Your task to perform on an android device: add a contact in the contacts app Image 0: 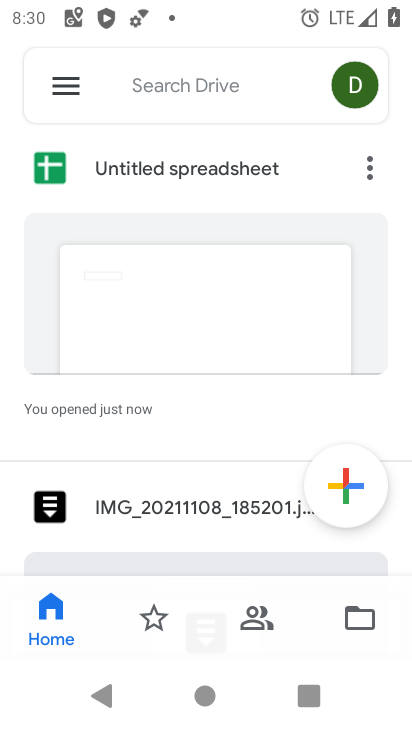
Step 0: press home button
Your task to perform on an android device: add a contact in the contacts app Image 1: 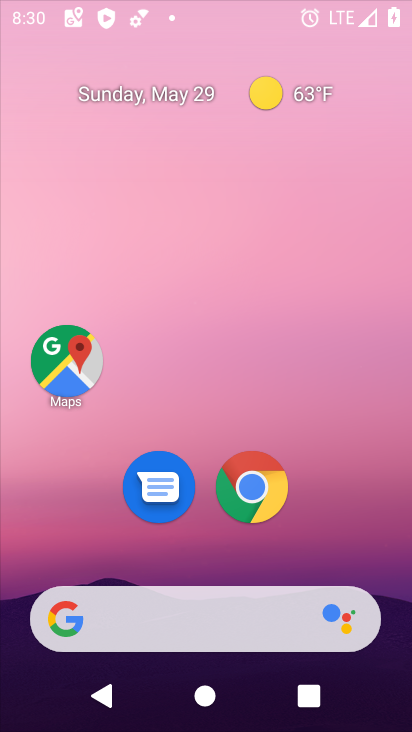
Step 1: drag from (264, 605) to (328, 81)
Your task to perform on an android device: add a contact in the contacts app Image 2: 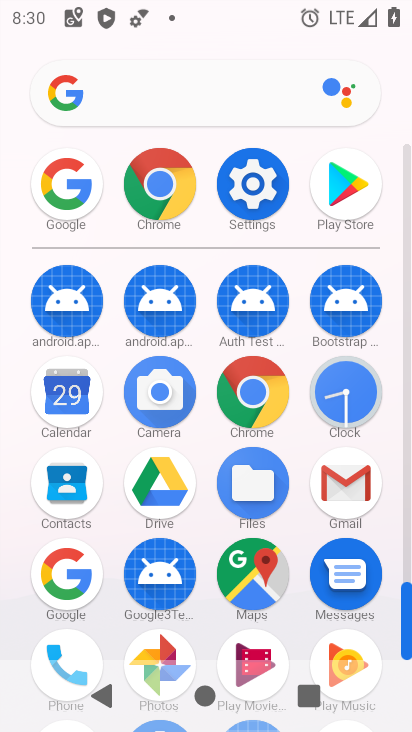
Step 2: click (67, 490)
Your task to perform on an android device: add a contact in the contacts app Image 3: 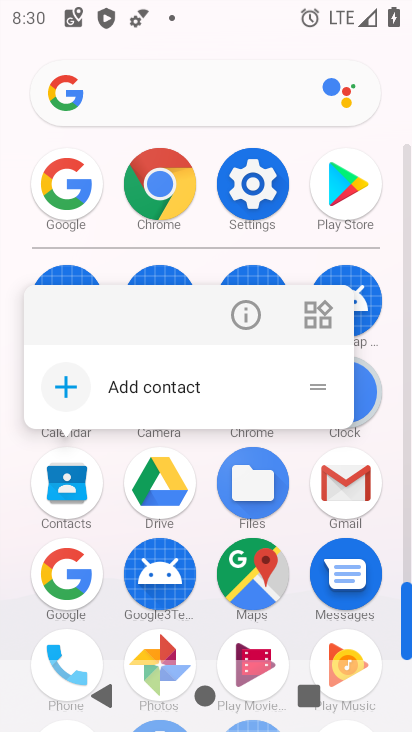
Step 3: click (70, 482)
Your task to perform on an android device: add a contact in the contacts app Image 4: 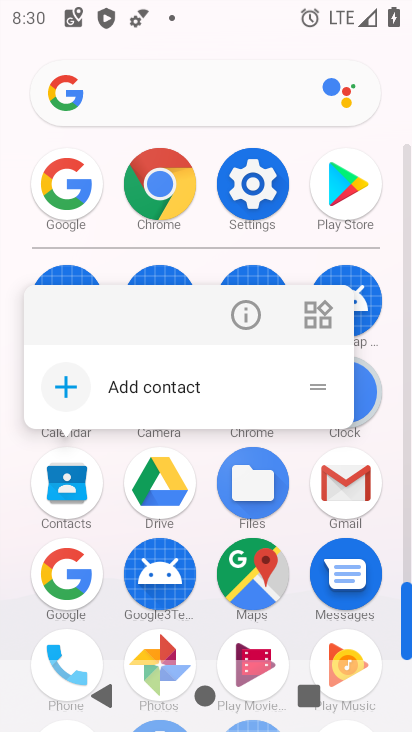
Step 4: click (75, 500)
Your task to perform on an android device: add a contact in the contacts app Image 5: 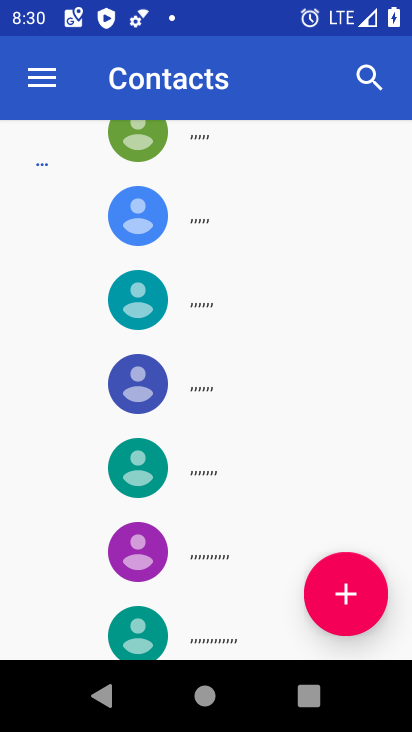
Step 5: click (356, 597)
Your task to perform on an android device: add a contact in the contacts app Image 6: 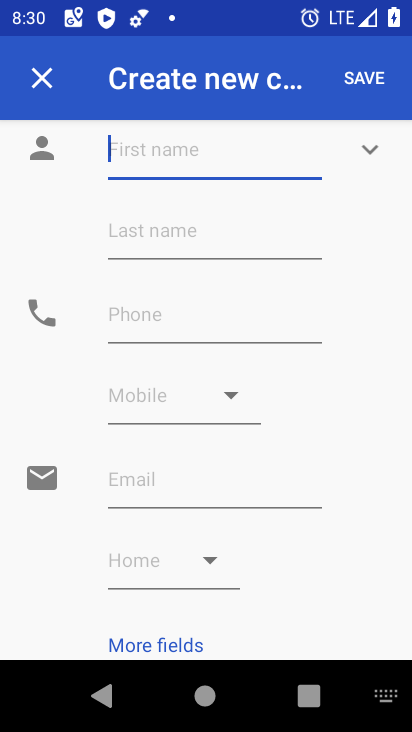
Step 6: type "saoojdi"
Your task to perform on an android device: add a contact in the contacts app Image 7: 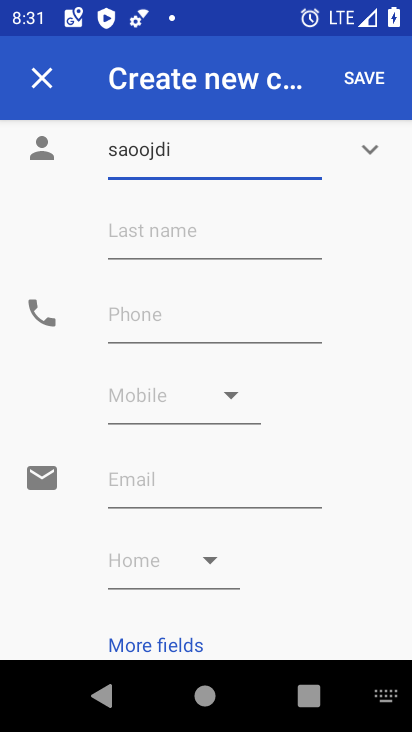
Step 7: click (194, 323)
Your task to perform on an android device: add a contact in the contacts app Image 8: 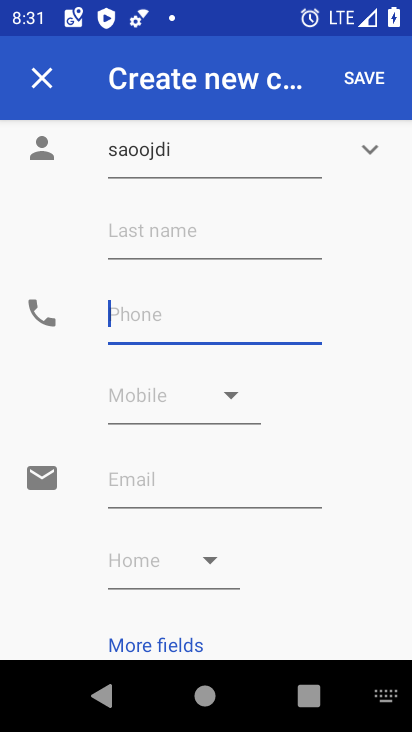
Step 8: type "9347832477"
Your task to perform on an android device: add a contact in the contacts app Image 9: 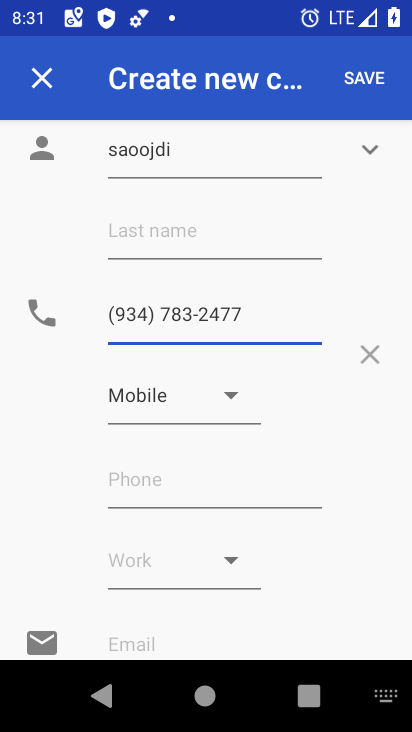
Step 9: click (365, 80)
Your task to perform on an android device: add a contact in the contacts app Image 10: 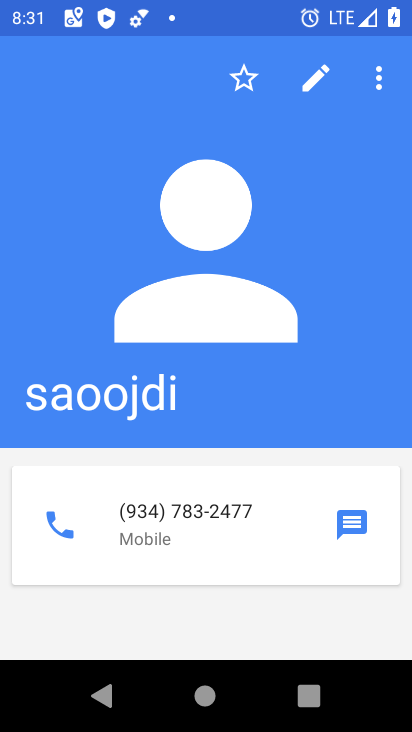
Step 10: task complete